Your task to perform on an android device: delete the emails in spam in the gmail app Image 0: 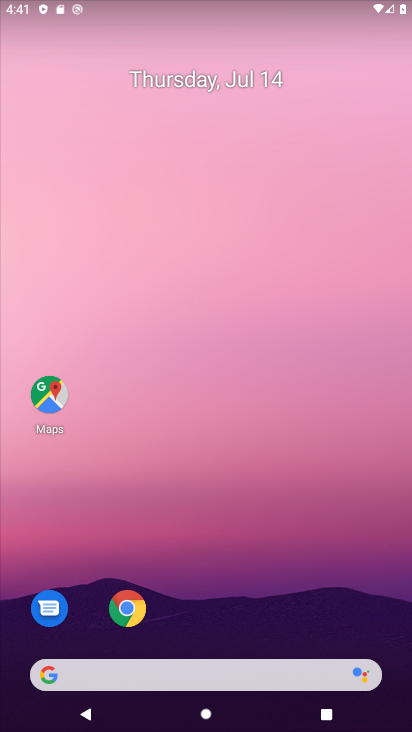
Step 0: drag from (288, 599) to (247, 4)
Your task to perform on an android device: delete the emails in spam in the gmail app Image 1: 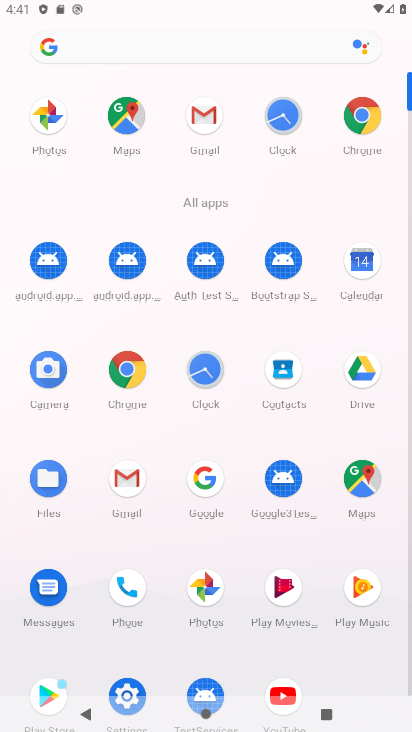
Step 1: click (202, 115)
Your task to perform on an android device: delete the emails in spam in the gmail app Image 2: 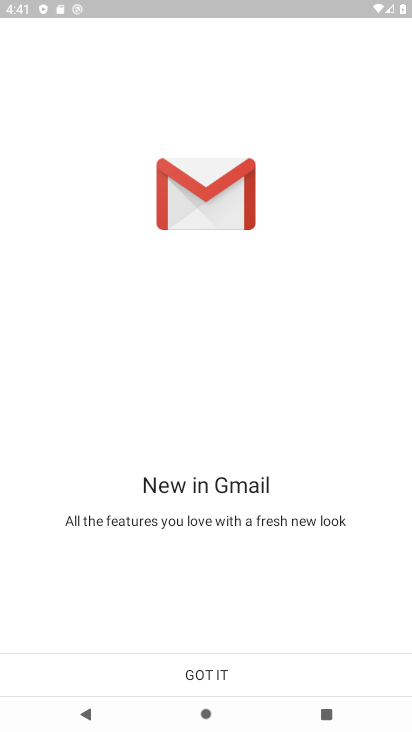
Step 2: click (229, 669)
Your task to perform on an android device: delete the emails in spam in the gmail app Image 3: 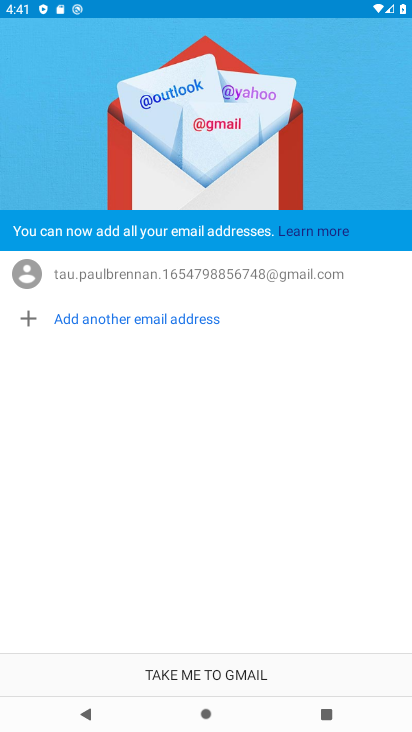
Step 3: click (224, 652)
Your task to perform on an android device: delete the emails in spam in the gmail app Image 4: 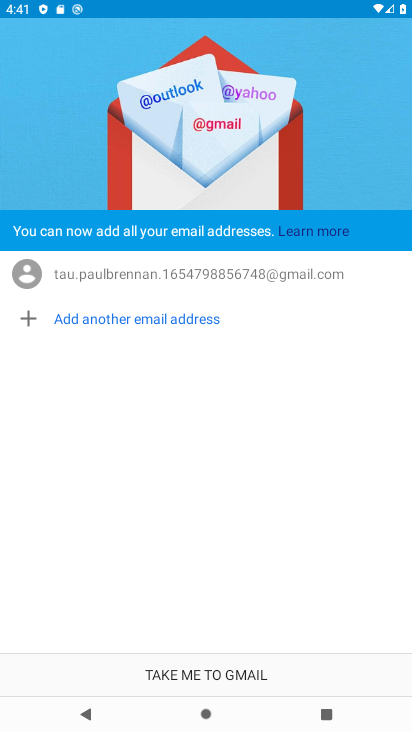
Step 4: click (230, 668)
Your task to perform on an android device: delete the emails in spam in the gmail app Image 5: 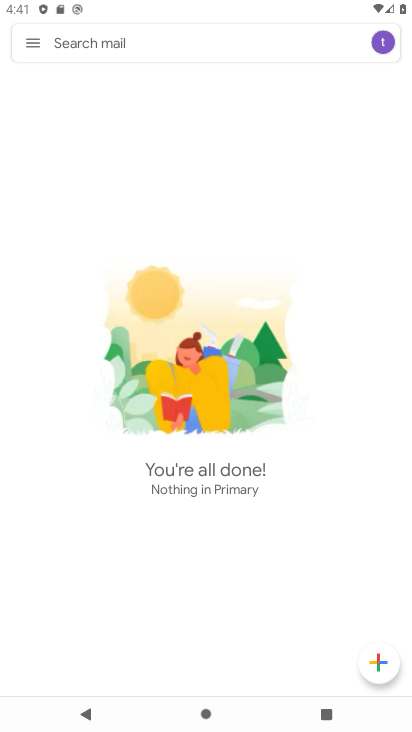
Step 5: click (32, 35)
Your task to perform on an android device: delete the emails in spam in the gmail app Image 6: 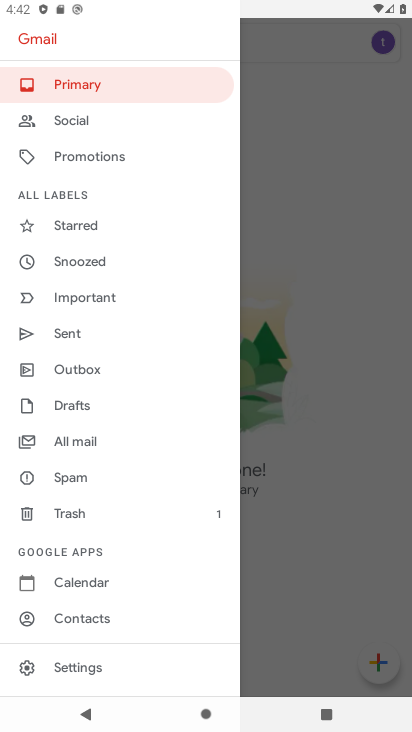
Step 6: click (74, 482)
Your task to perform on an android device: delete the emails in spam in the gmail app Image 7: 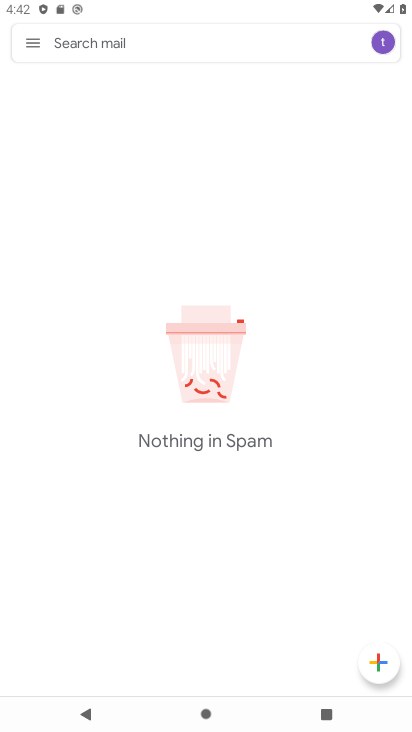
Step 7: task complete